Your task to perform on an android device: turn on sleep mode Image 0: 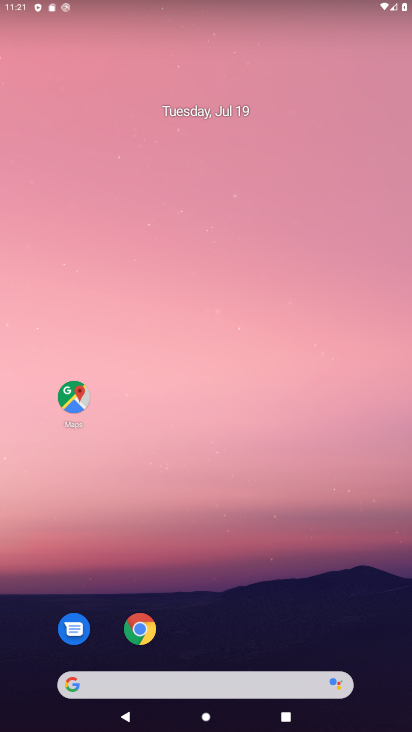
Step 0: drag from (289, 495) to (349, 1)
Your task to perform on an android device: turn on sleep mode Image 1: 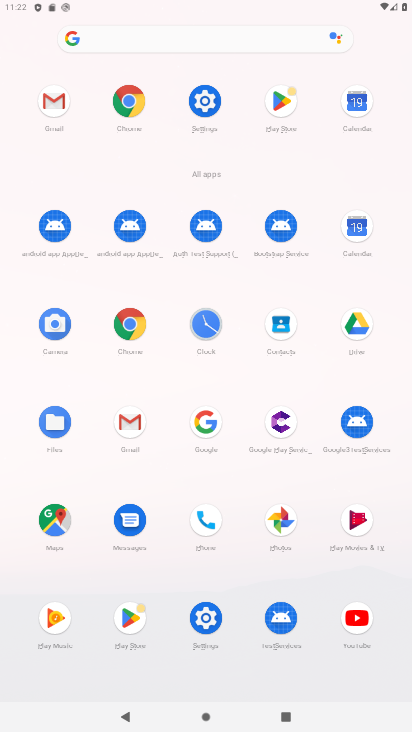
Step 1: click (204, 99)
Your task to perform on an android device: turn on sleep mode Image 2: 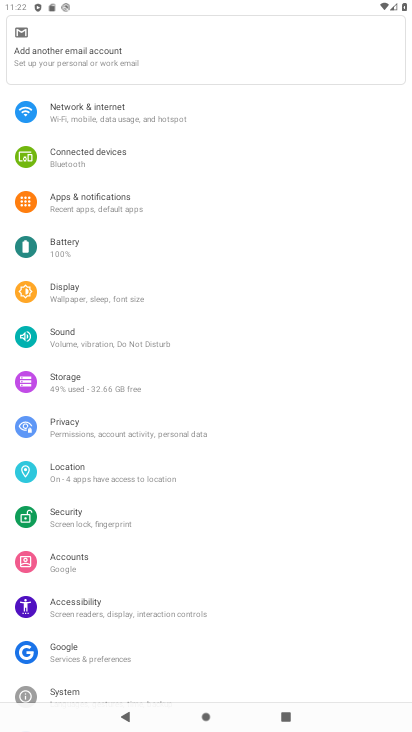
Step 2: drag from (178, 275) to (232, 581)
Your task to perform on an android device: turn on sleep mode Image 3: 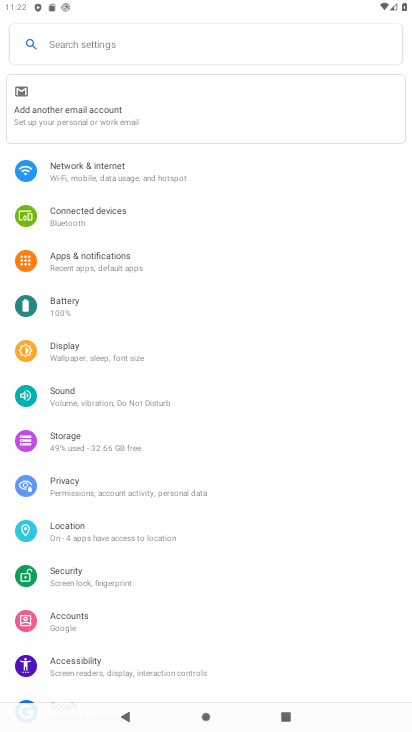
Step 3: click (105, 340)
Your task to perform on an android device: turn on sleep mode Image 4: 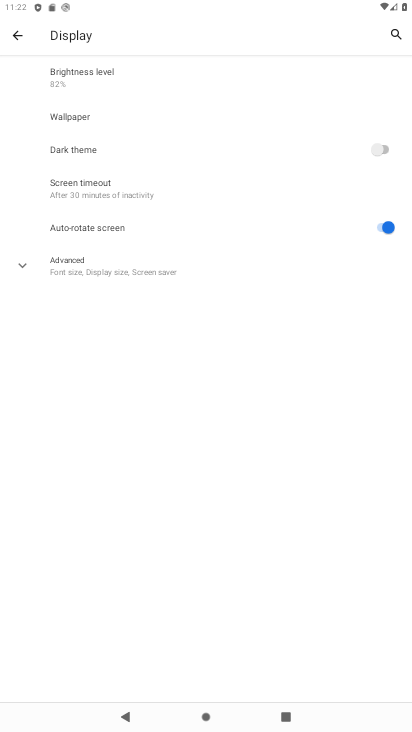
Step 4: click (112, 190)
Your task to perform on an android device: turn on sleep mode Image 5: 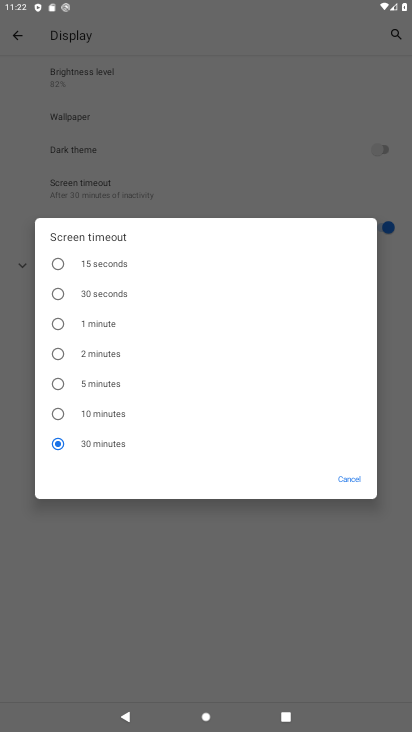
Step 5: task complete